Your task to perform on an android device: Open Chrome and go to settings Image 0: 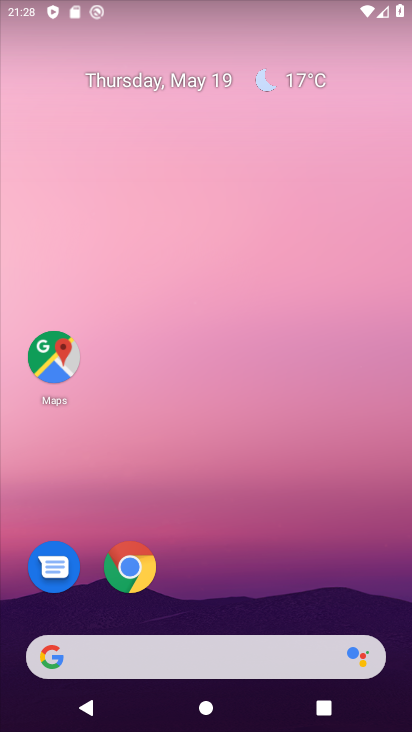
Step 0: click (142, 570)
Your task to perform on an android device: Open Chrome and go to settings Image 1: 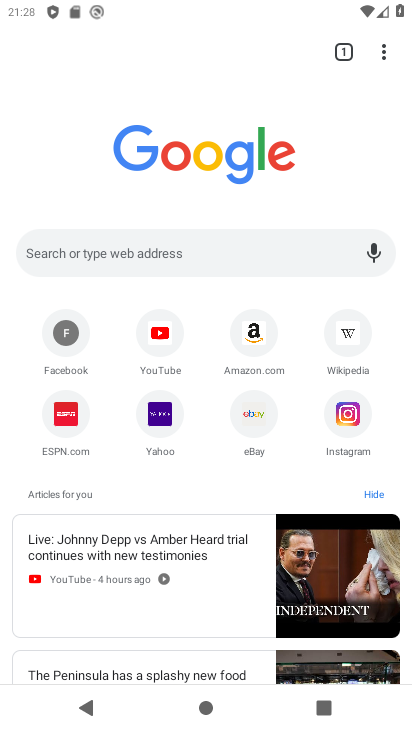
Step 1: click (380, 44)
Your task to perform on an android device: Open Chrome and go to settings Image 2: 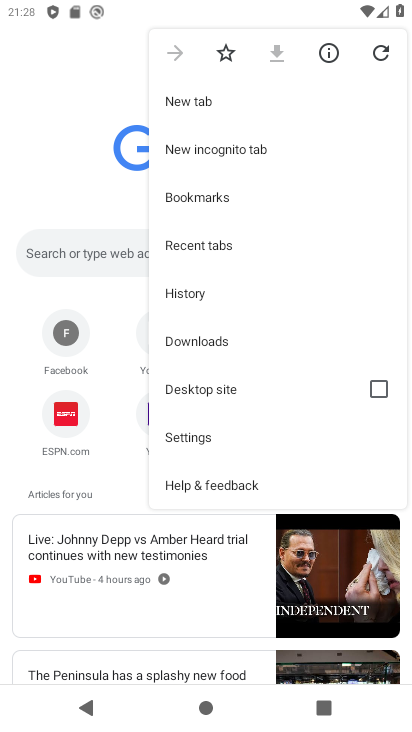
Step 2: drag from (249, 433) to (233, 294)
Your task to perform on an android device: Open Chrome and go to settings Image 3: 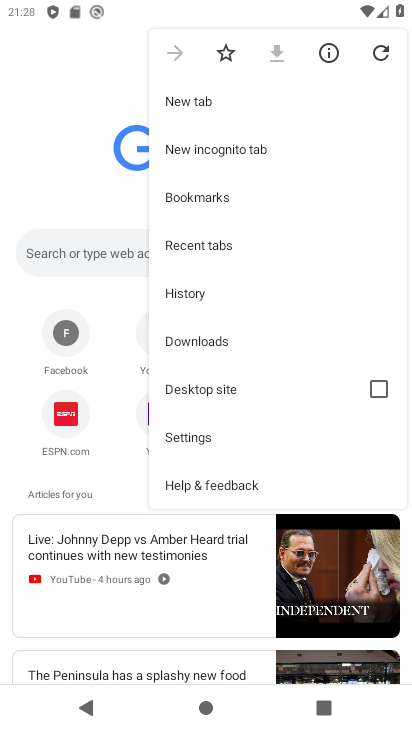
Step 3: click (213, 431)
Your task to perform on an android device: Open Chrome and go to settings Image 4: 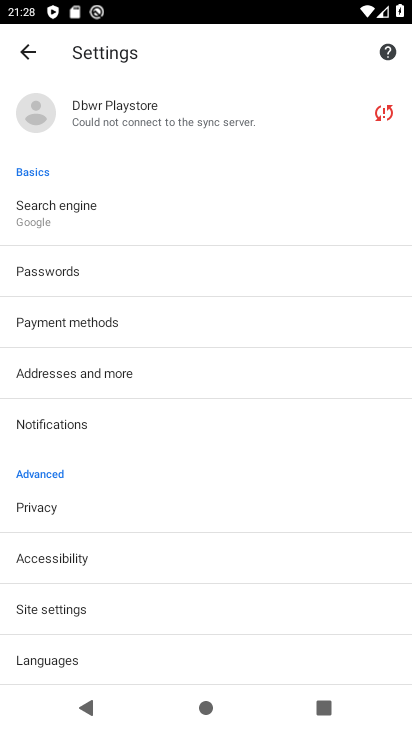
Step 4: task complete